Your task to perform on an android device: Set the phone to "Do not disturb". Image 0: 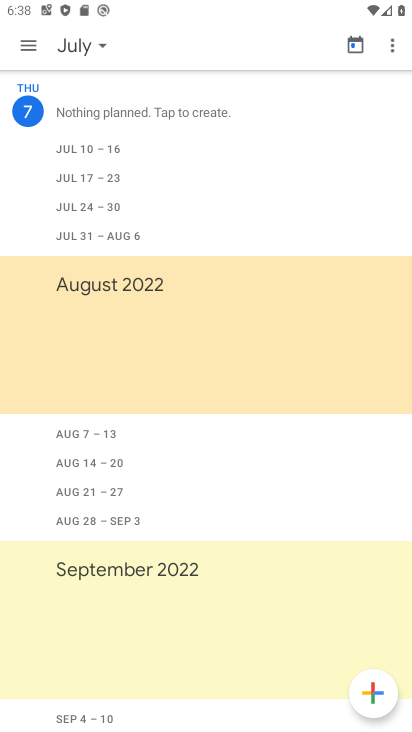
Step 0: press home button
Your task to perform on an android device: Set the phone to "Do not disturb". Image 1: 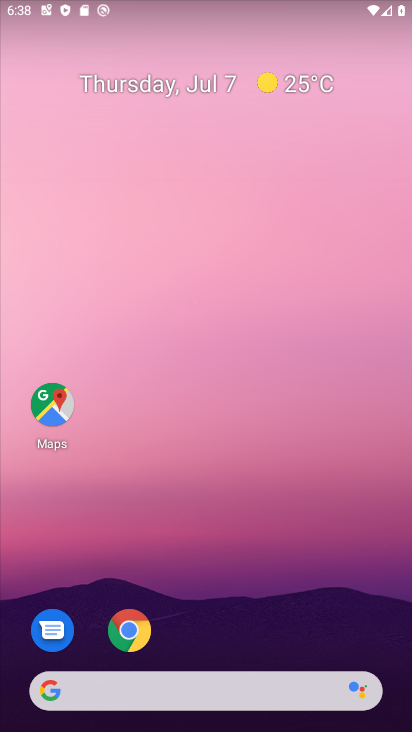
Step 1: drag from (215, 586) to (86, 76)
Your task to perform on an android device: Set the phone to "Do not disturb". Image 2: 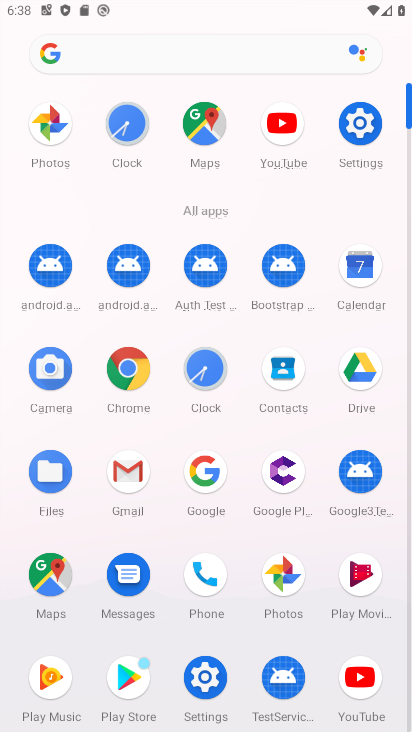
Step 2: click (358, 120)
Your task to perform on an android device: Set the phone to "Do not disturb". Image 3: 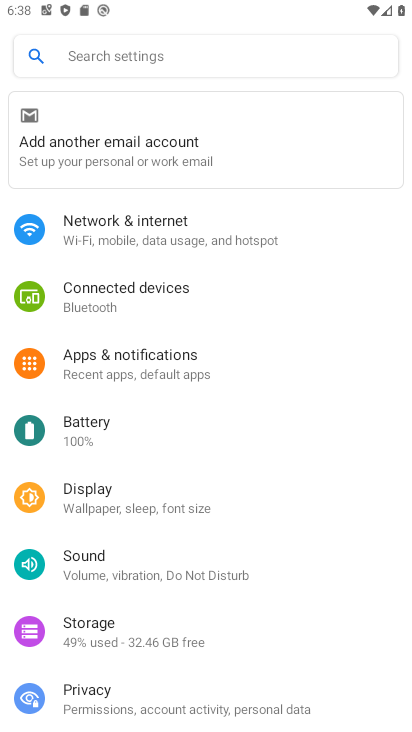
Step 3: click (97, 551)
Your task to perform on an android device: Set the phone to "Do not disturb". Image 4: 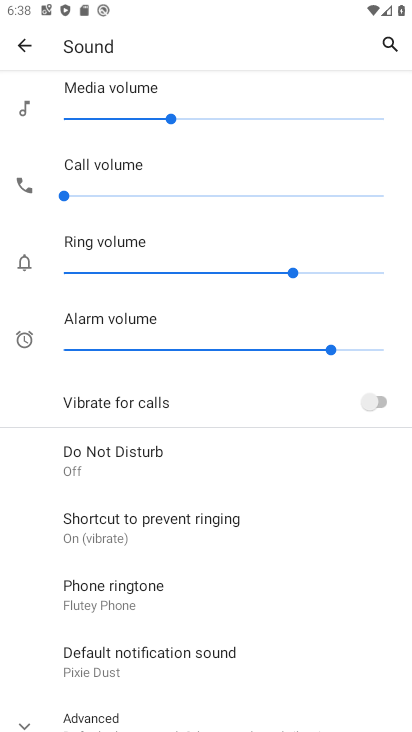
Step 4: click (110, 456)
Your task to perform on an android device: Set the phone to "Do not disturb". Image 5: 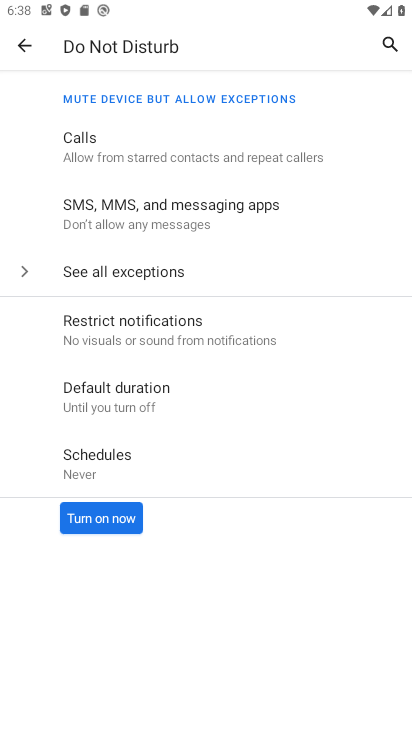
Step 5: click (126, 523)
Your task to perform on an android device: Set the phone to "Do not disturb". Image 6: 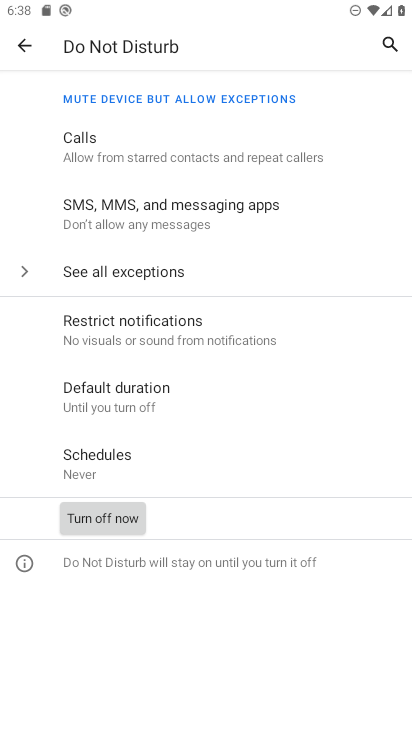
Step 6: task complete